Your task to perform on an android device: turn off wifi Image 0: 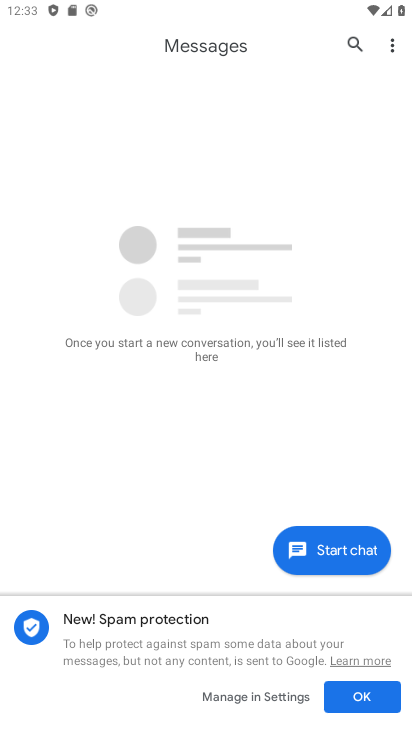
Step 0: press home button
Your task to perform on an android device: turn off wifi Image 1: 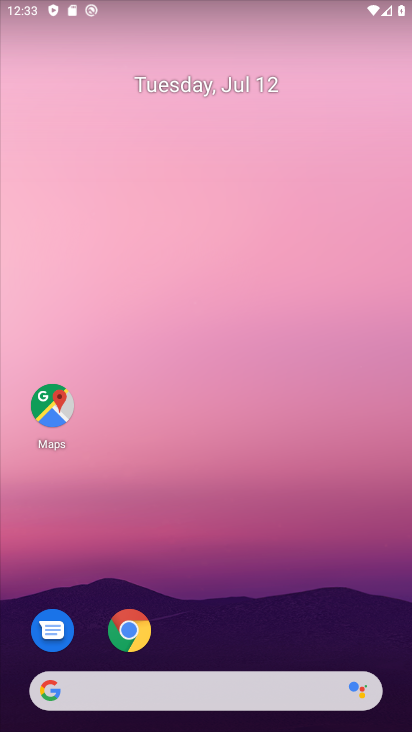
Step 1: drag from (222, 544) to (315, 2)
Your task to perform on an android device: turn off wifi Image 2: 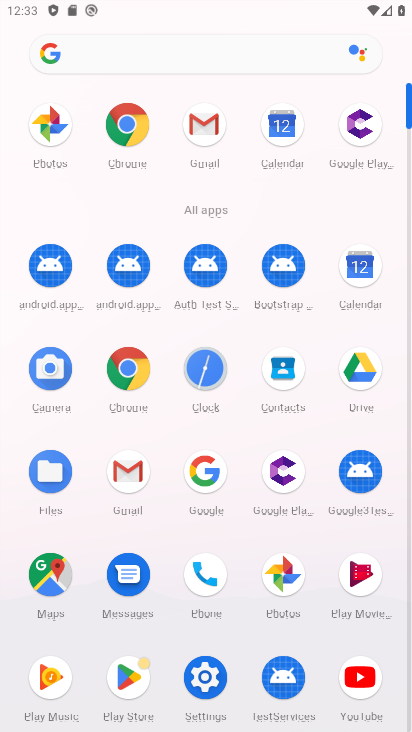
Step 2: click (206, 664)
Your task to perform on an android device: turn off wifi Image 3: 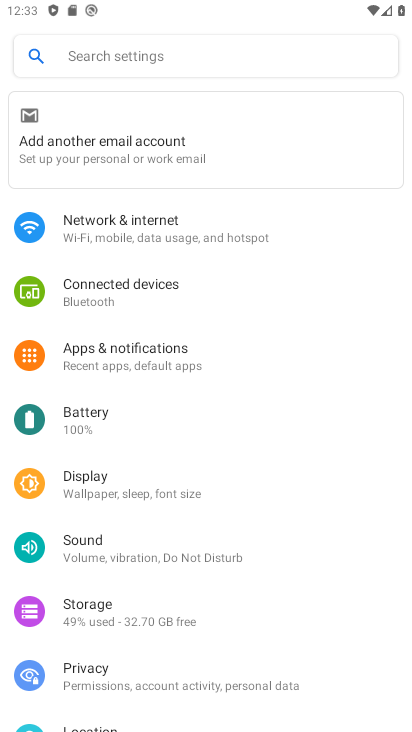
Step 3: click (155, 234)
Your task to perform on an android device: turn off wifi Image 4: 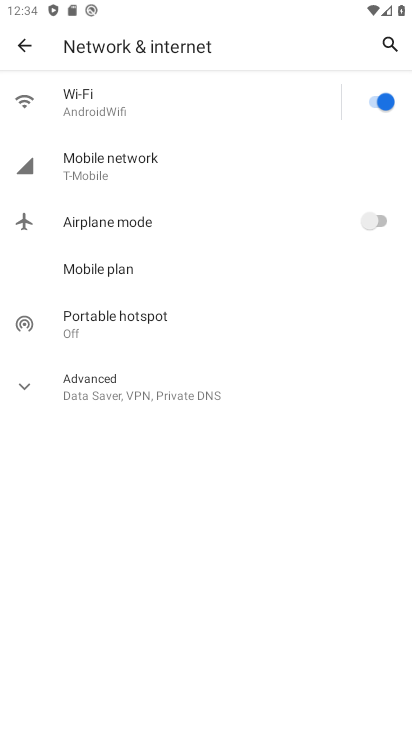
Step 4: click (384, 93)
Your task to perform on an android device: turn off wifi Image 5: 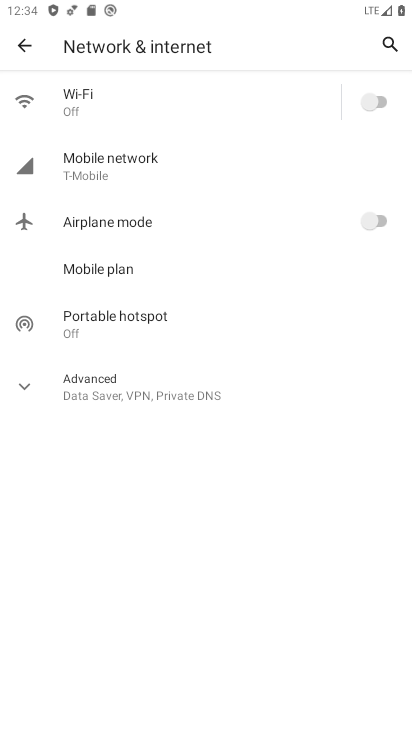
Step 5: task complete